Your task to perform on an android device: check out phone information Image 0: 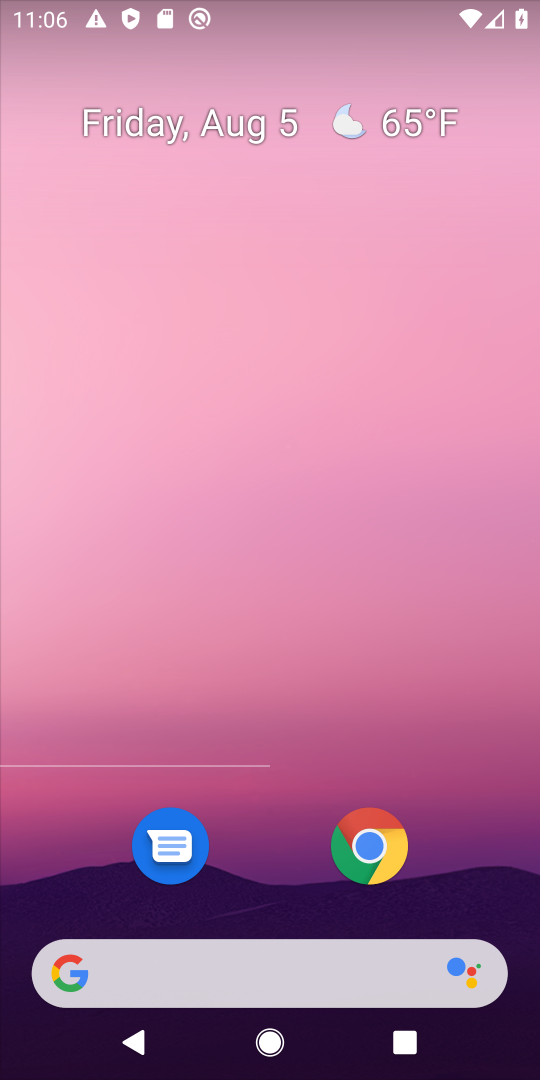
Step 0: drag from (283, 584) to (264, 55)
Your task to perform on an android device: check out phone information Image 1: 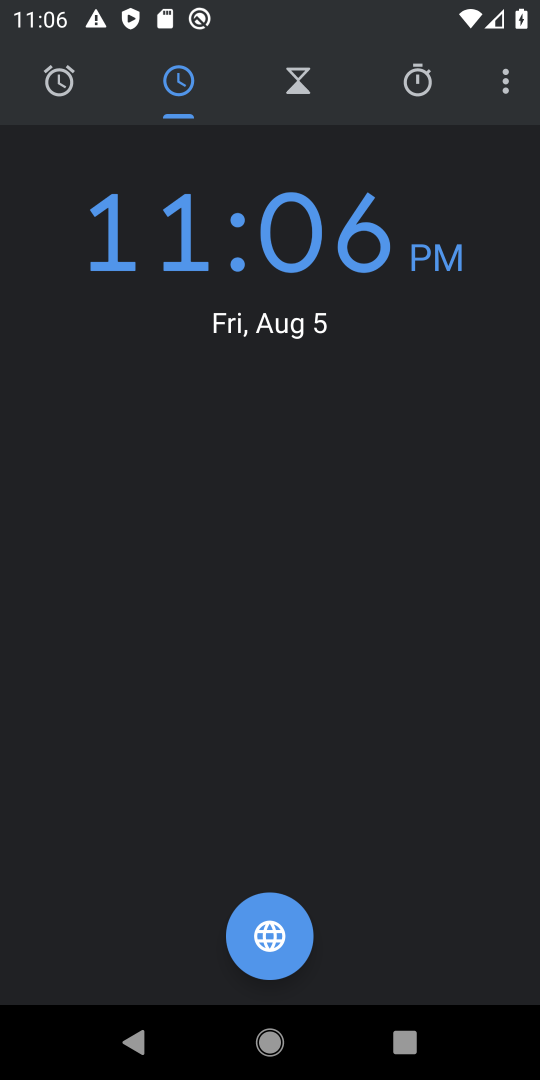
Step 1: press home button
Your task to perform on an android device: check out phone information Image 2: 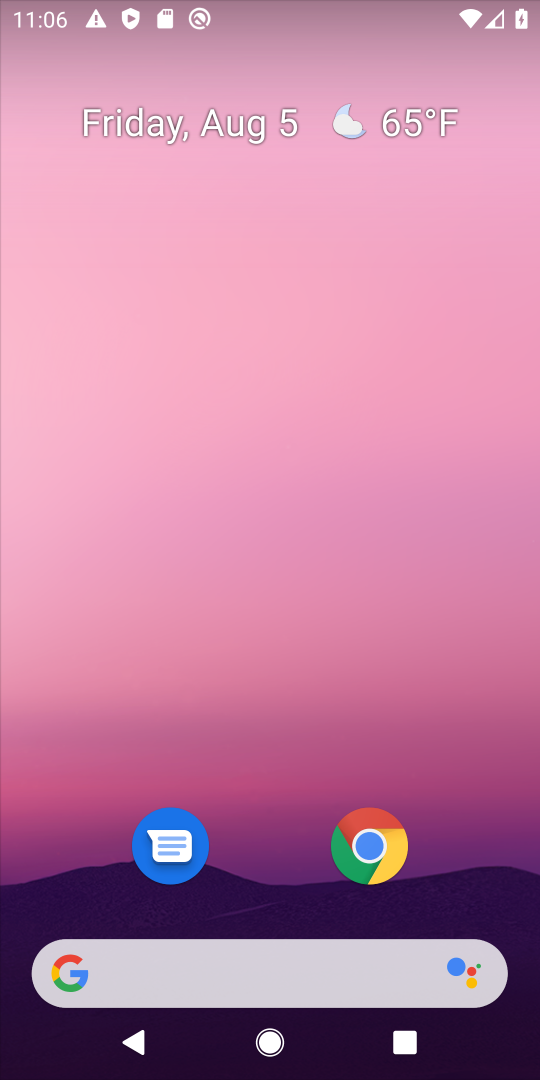
Step 2: drag from (247, 218) to (242, 53)
Your task to perform on an android device: check out phone information Image 3: 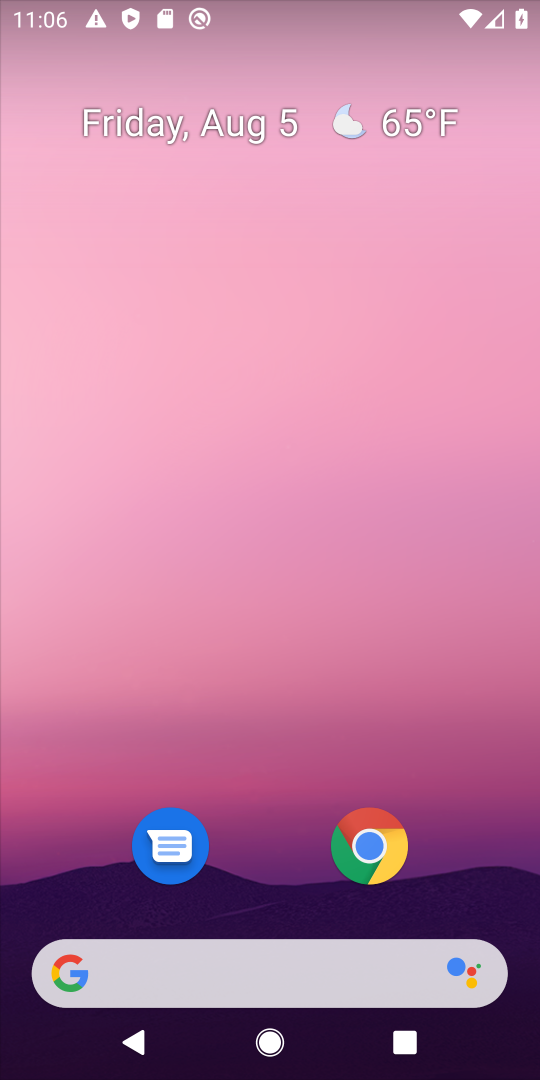
Step 3: drag from (279, 839) to (231, 0)
Your task to perform on an android device: check out phone information Image 4: 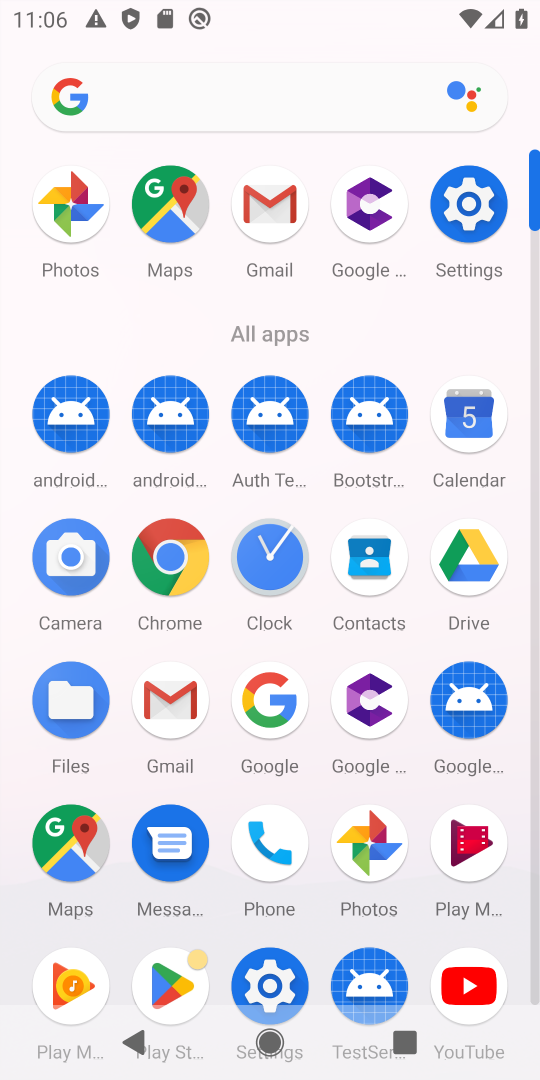
Step 4: click (282, 843)
Your task to perform on an android device: check out phone information Image 5: 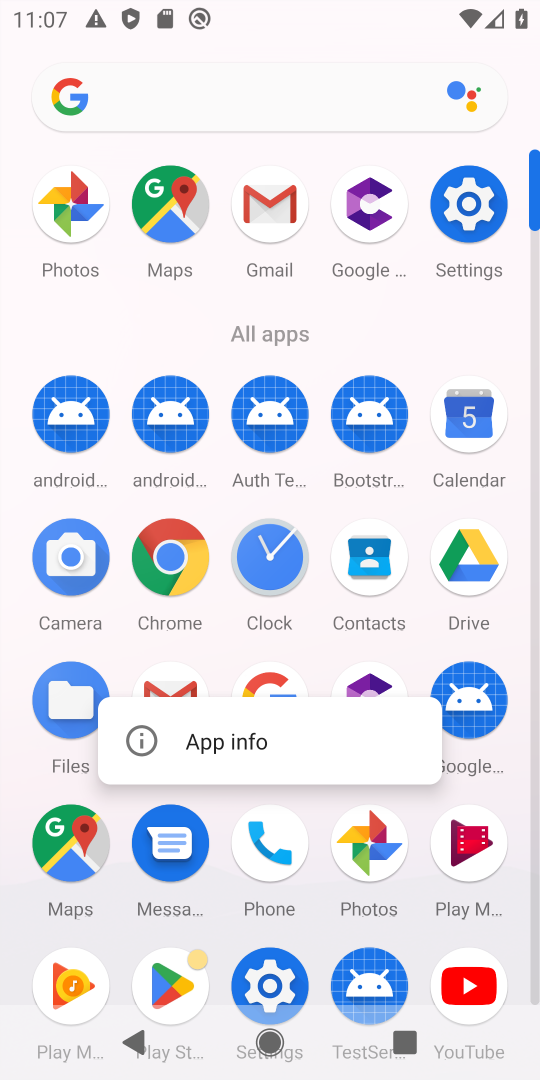
Step 5: click (282, 834)
Your task to perform on an android device: check out phone information Image 6: 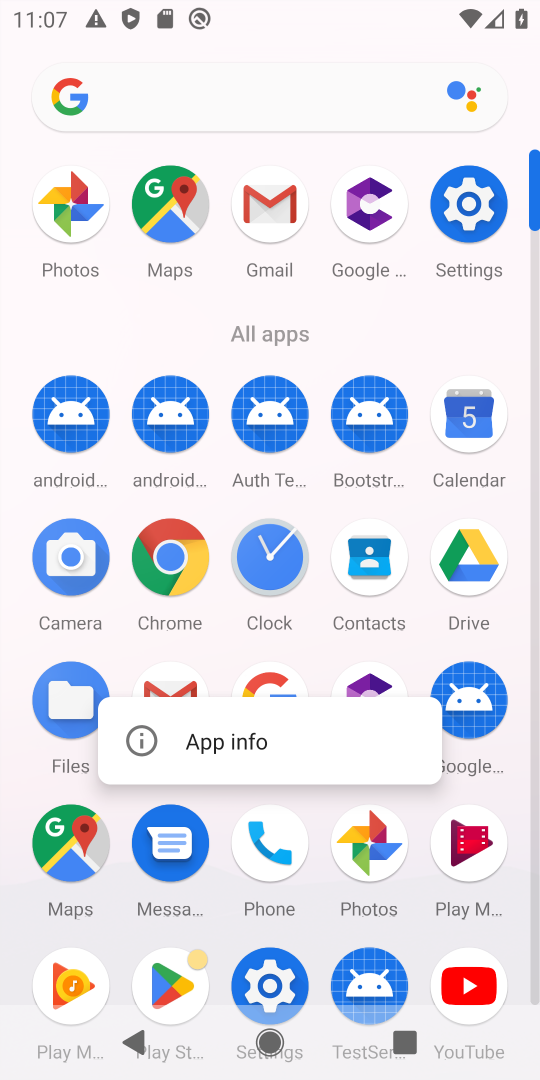
Step 6: click (282, 834)
Your task to perform on an android device: check out phone information Image 7: 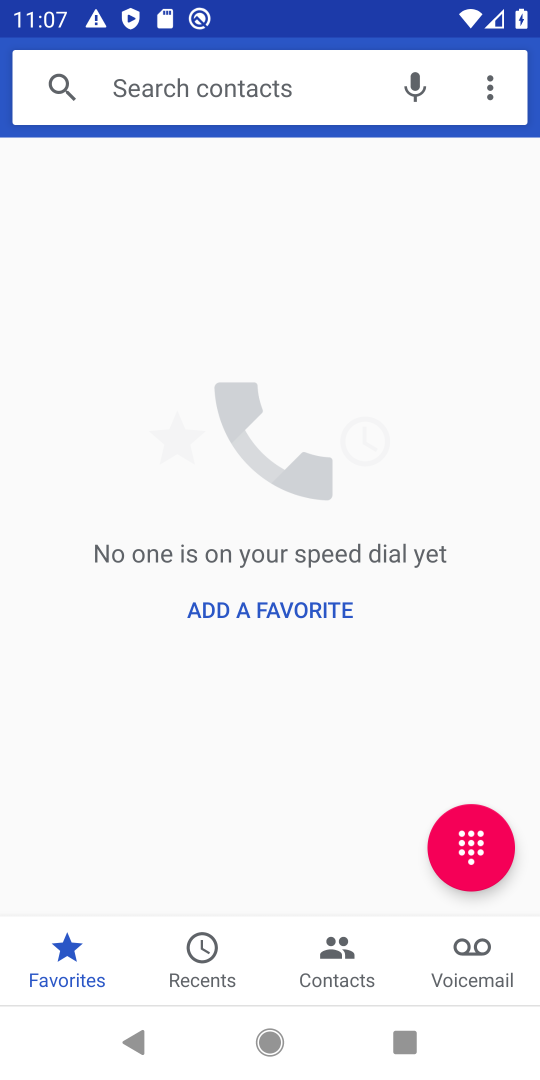
Step 7: click (487, 80)
Your task to perform on an android device: check out phone information Image 8: 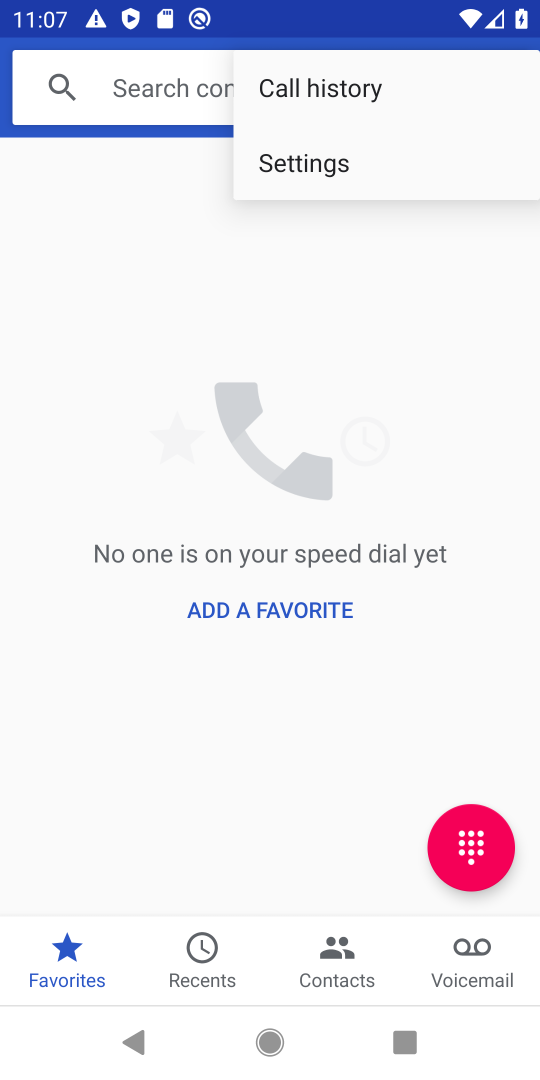
Step 8: click (395, 157)
Your task to perform on an android device: check out phone information Image 9: 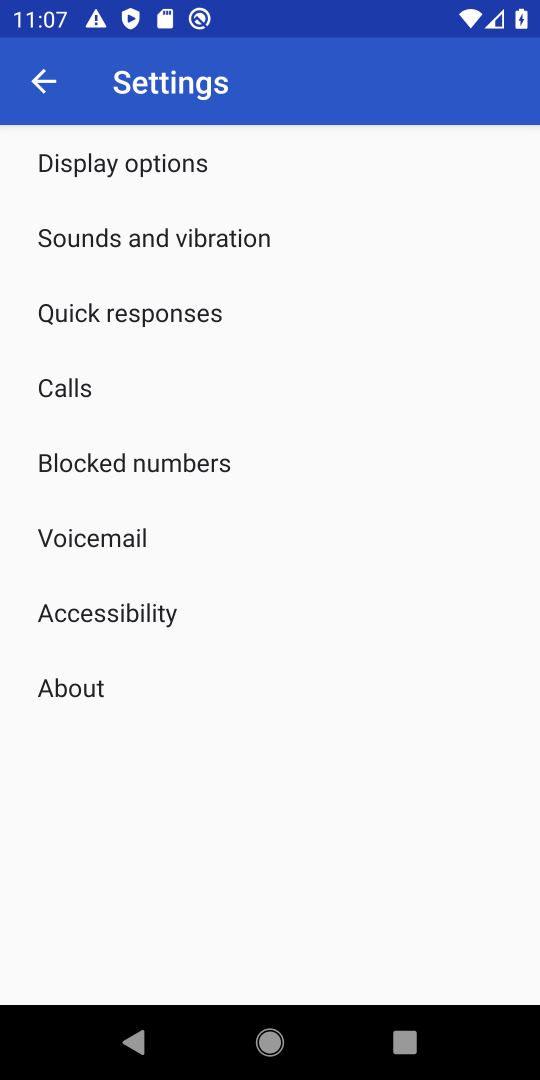
Step 9: click (97, 687)
Your task to perform on an android device: check out phone information Image 10: 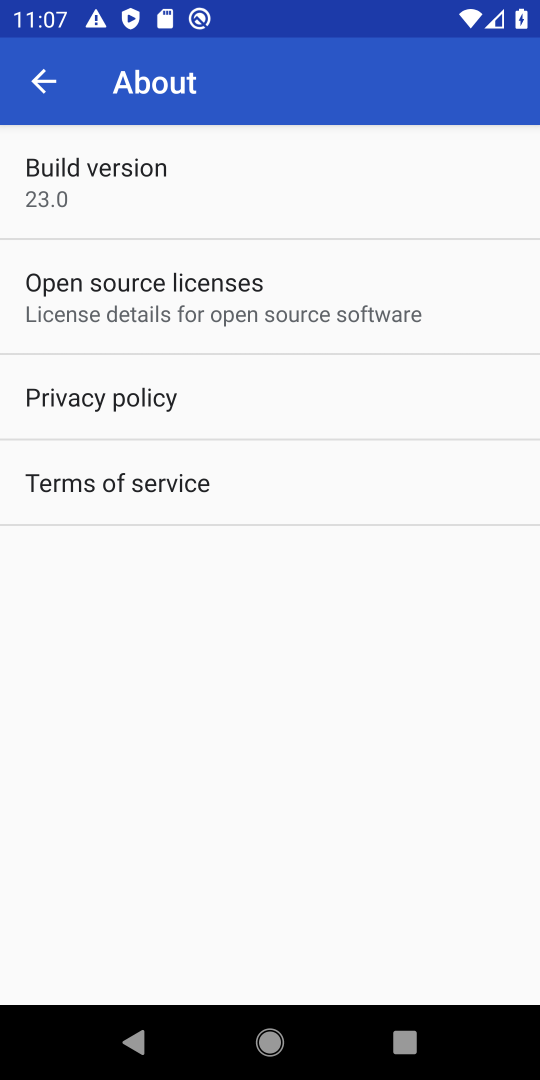
Step 10: task complete